Your task to perform on an android device: add a label to a message in the gmail app Image 0: 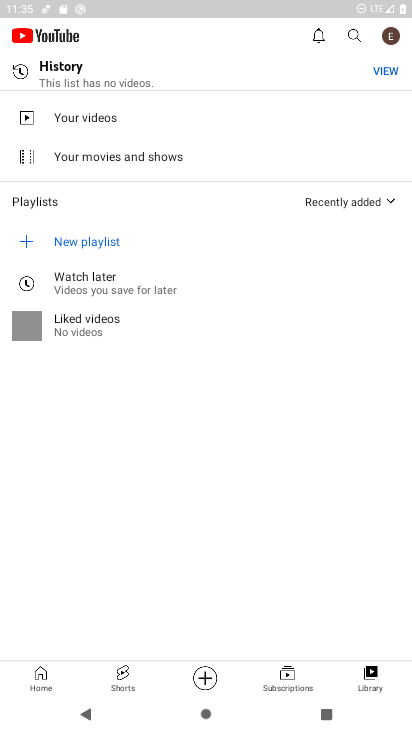
Step 0: press home button
Your task to perform on an android device: add a label to a message in the gmail app Image 1: 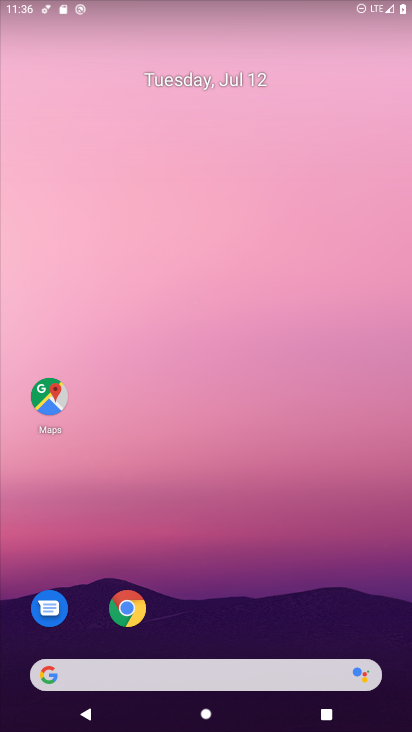
Step 1: drag from (193, 633) to (231, 81)
Your task to perform on an android device: add a label to a message in the gmail app Image 2: 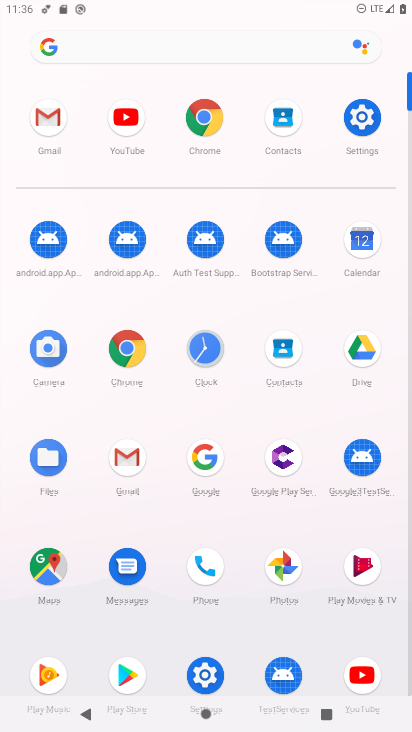
Step 2: click (38, 105)
Your task to perform on an android device: add a label to a message in the gmail app Image 3: 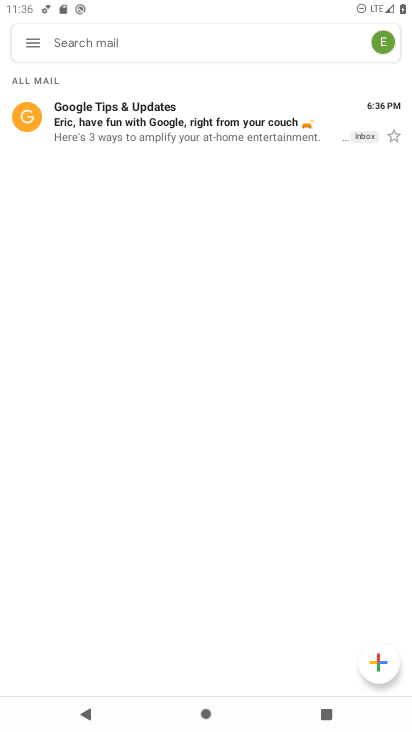
Step 3: click (33, 111)
Your task to perform on an android device: add a label to a message in the gmail app Image 4: 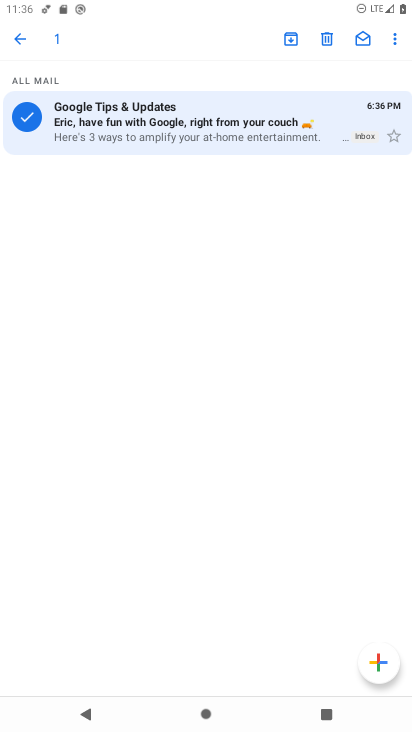
Step 4: click (404, 34)
Your task to perform on an android device: add a label to a message in the gmail app Image 5: 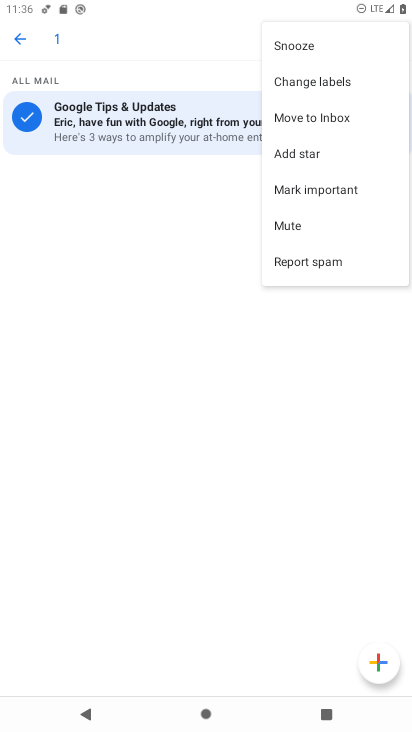
Step 5: click (330, 81)
Your task to perform on an android device: add a label to a message in the gmail app Image 6: 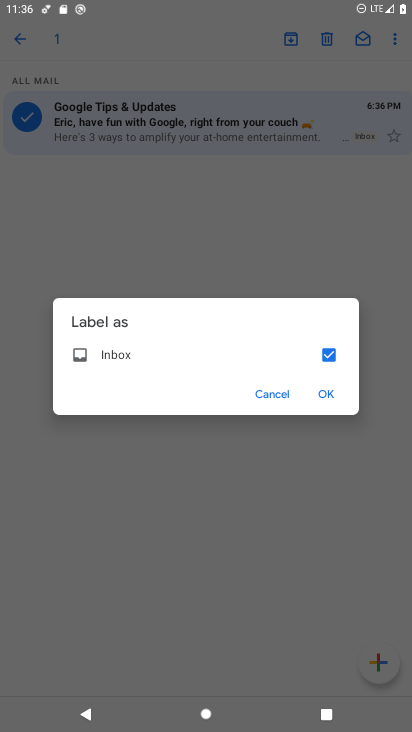
Step 6: click (326, 389)
Your task to perform on an android device: add a label to a message in the gmail app Image 7: 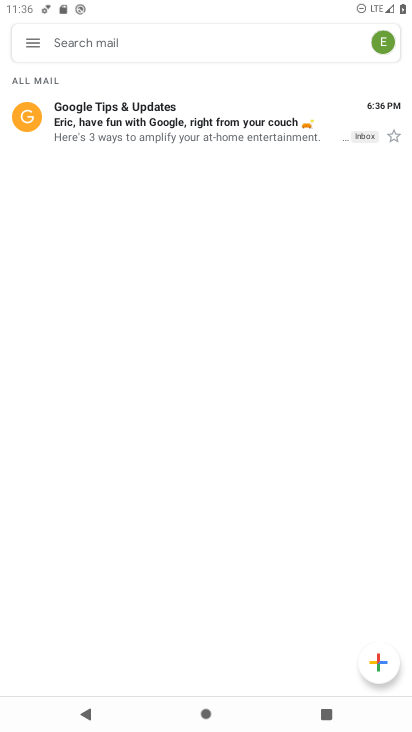
Step 7: task complete